Your task to perform on an android device: Empty the shopping cart on newegg.com. Search for macbook pro 15 inch on newegg.com, select the first entry, and add it to the cart. Image 0: 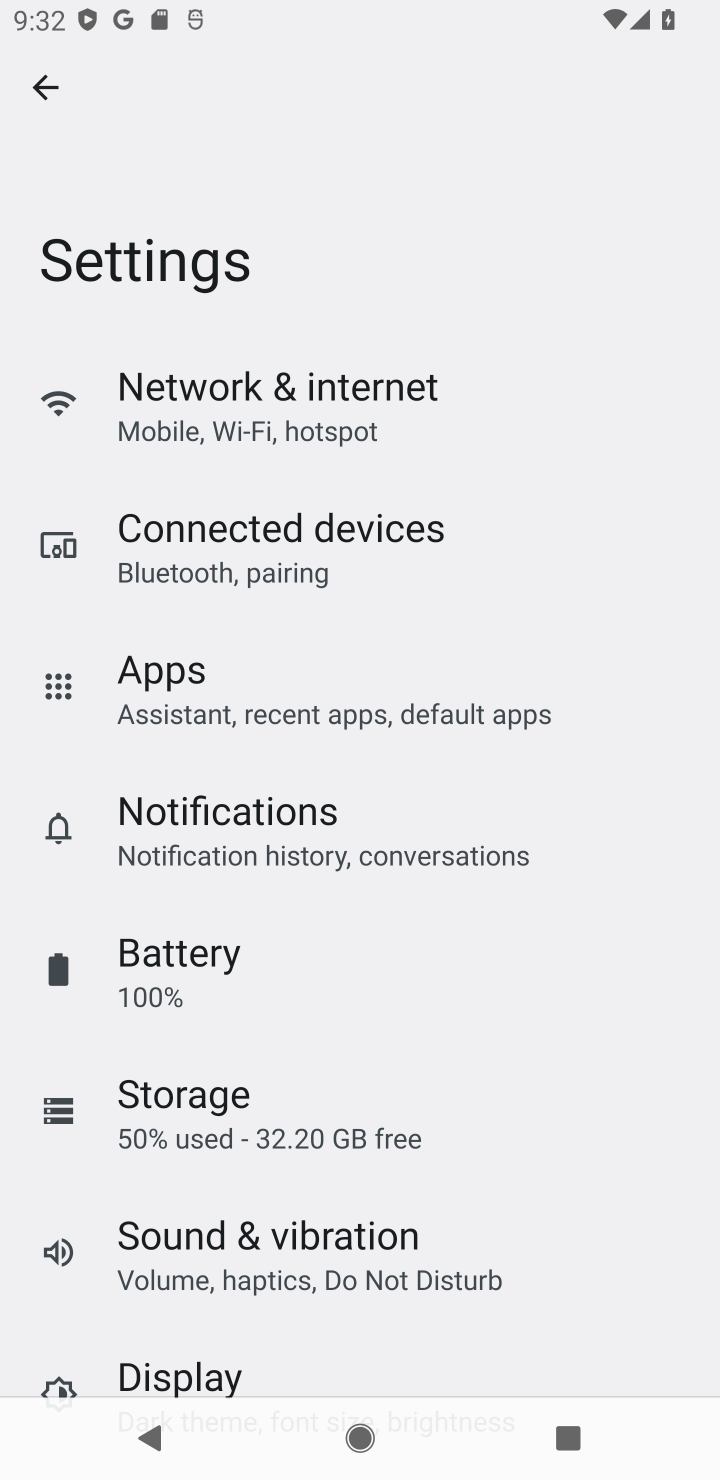
Step 0: press home button
Your task to perform on an android device: Empty the shopping cart on newegg.com. Search for macbook pro 15 inch on newegg.com, select the first entry, and add it to the cart. Image 1: 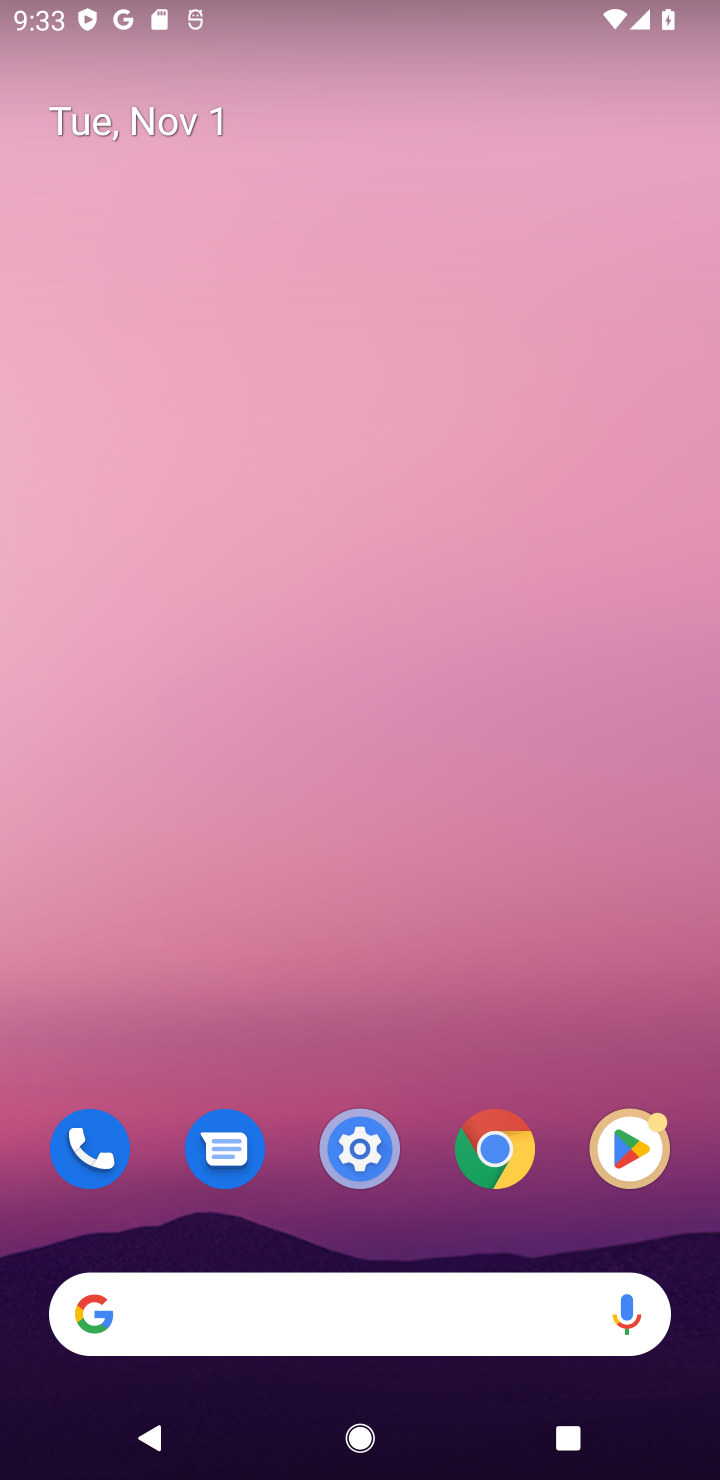
Step 1: click (152, 1308)
Your task to perform on an android device: Empty the shopping cart on newegg.com. Search for macbook pro 15 inch on newegg.com, select the first entry, and add it to the cart. Image 2: 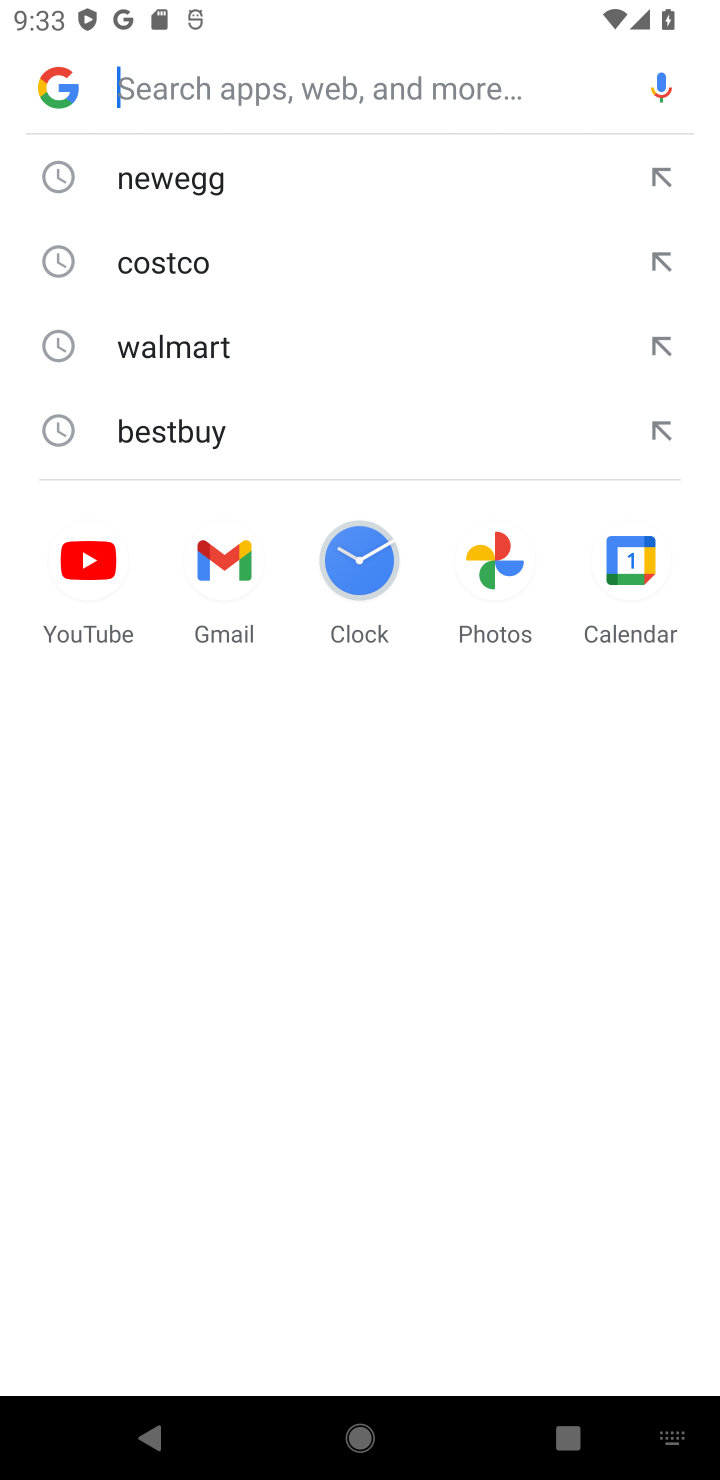
Step 2: type "newegg.com"
Your task to perform on an android device: Empty the shopping cart on newegg.com. Search for macbook pro 15 inch on newegg.com, select the first entry, and add it to the cart. Image 3: 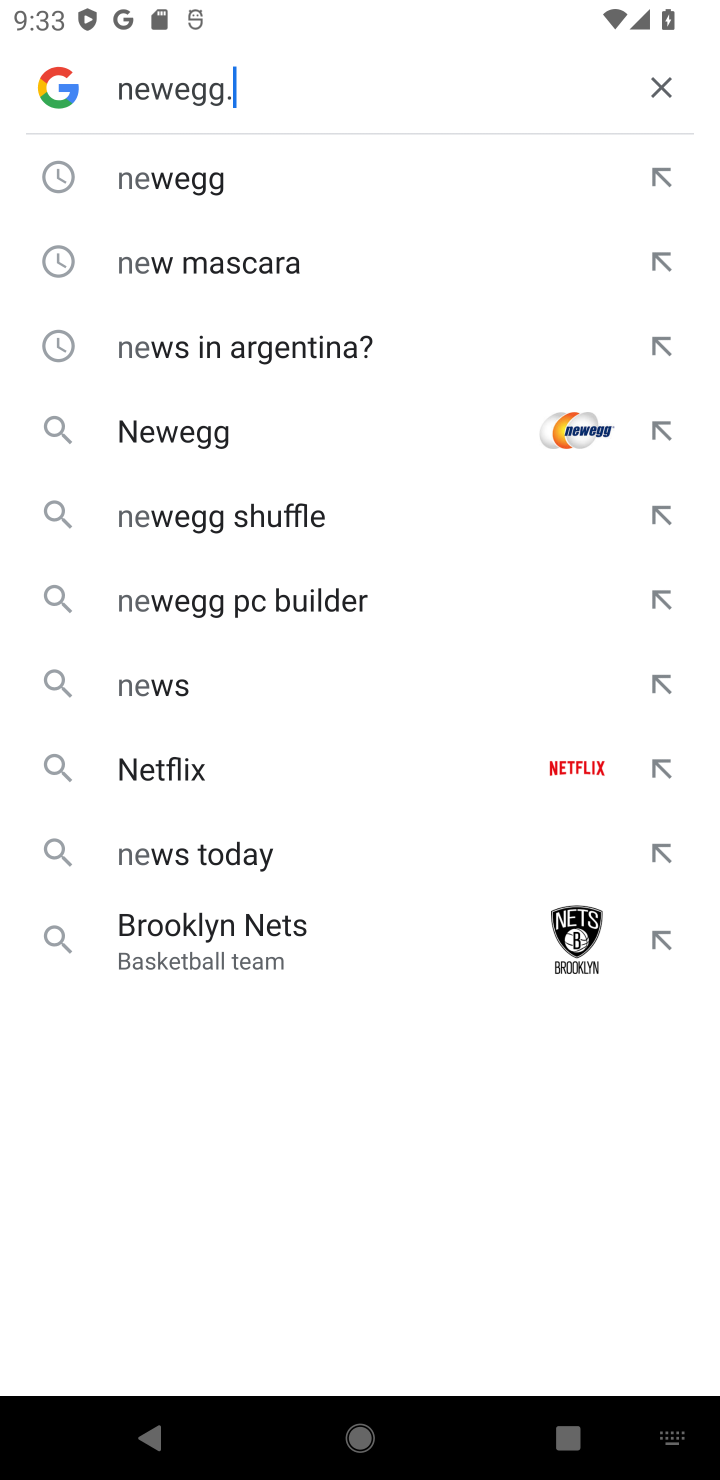
Step 3: press enter
Your task to perform on an android device: Empty the shopping cart on newegg.com. Search for macbook pro 15 inch on newegg.com, select the first entry, and add it to the cart. Image 4: 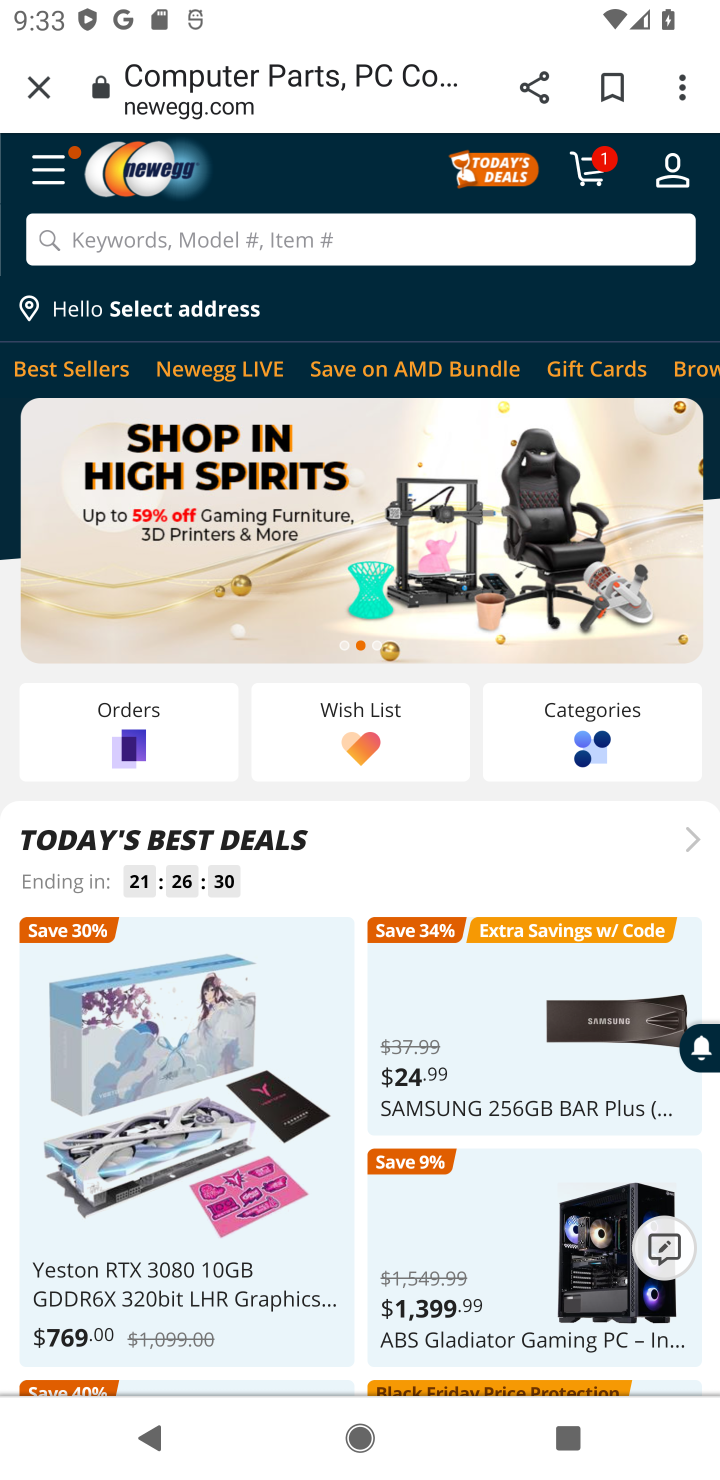
Step 4: click (596, 176)
Your task to perform on an android device: Empty the shopping cart on newegg.com. Search for macbook pro 15 inch on newegg.com, select the first entry, and add it to the cart. Image 5: 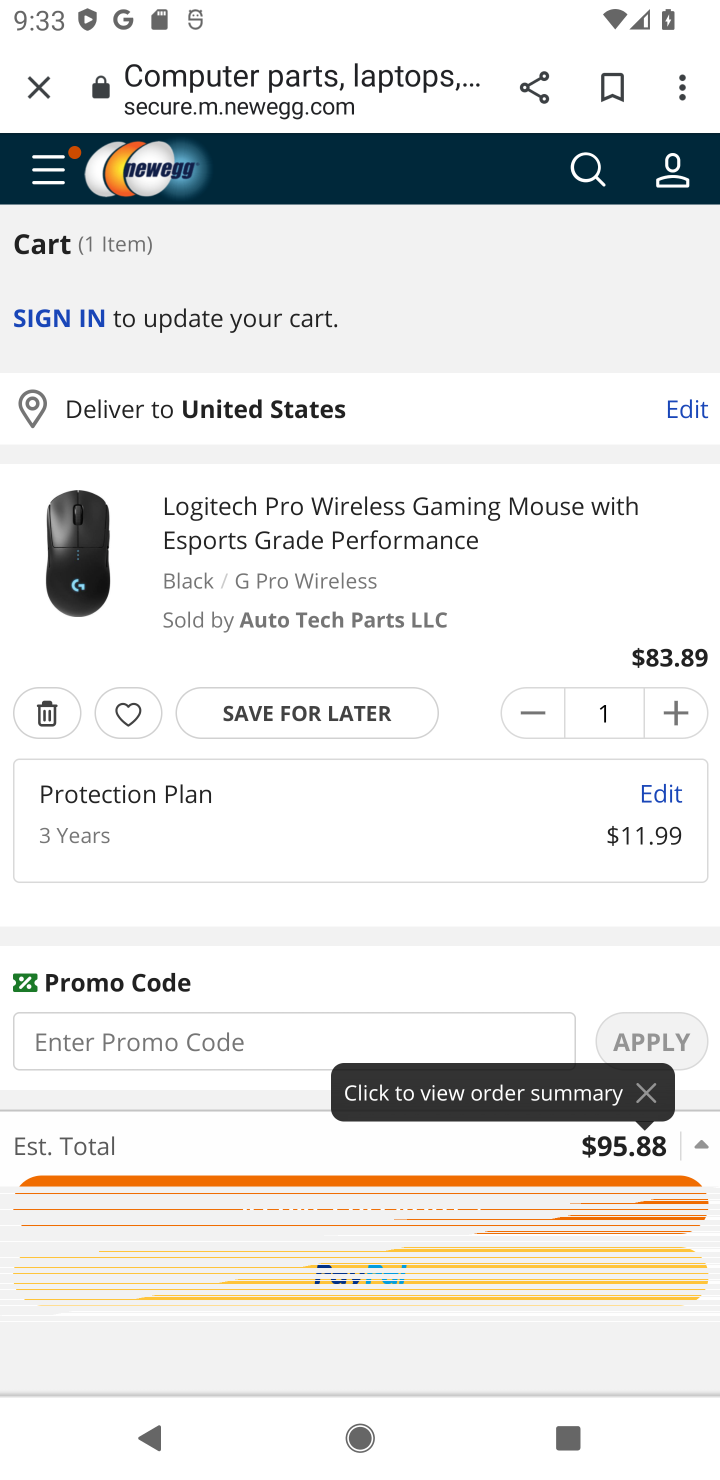
Step 5: click (39, 709)
Your task to perform on an android device: Empty the shopping cart on newegg.com. Search for macbook pro 15 inch on newegg.com, select the first entry, and add it to the cart. Image 6: 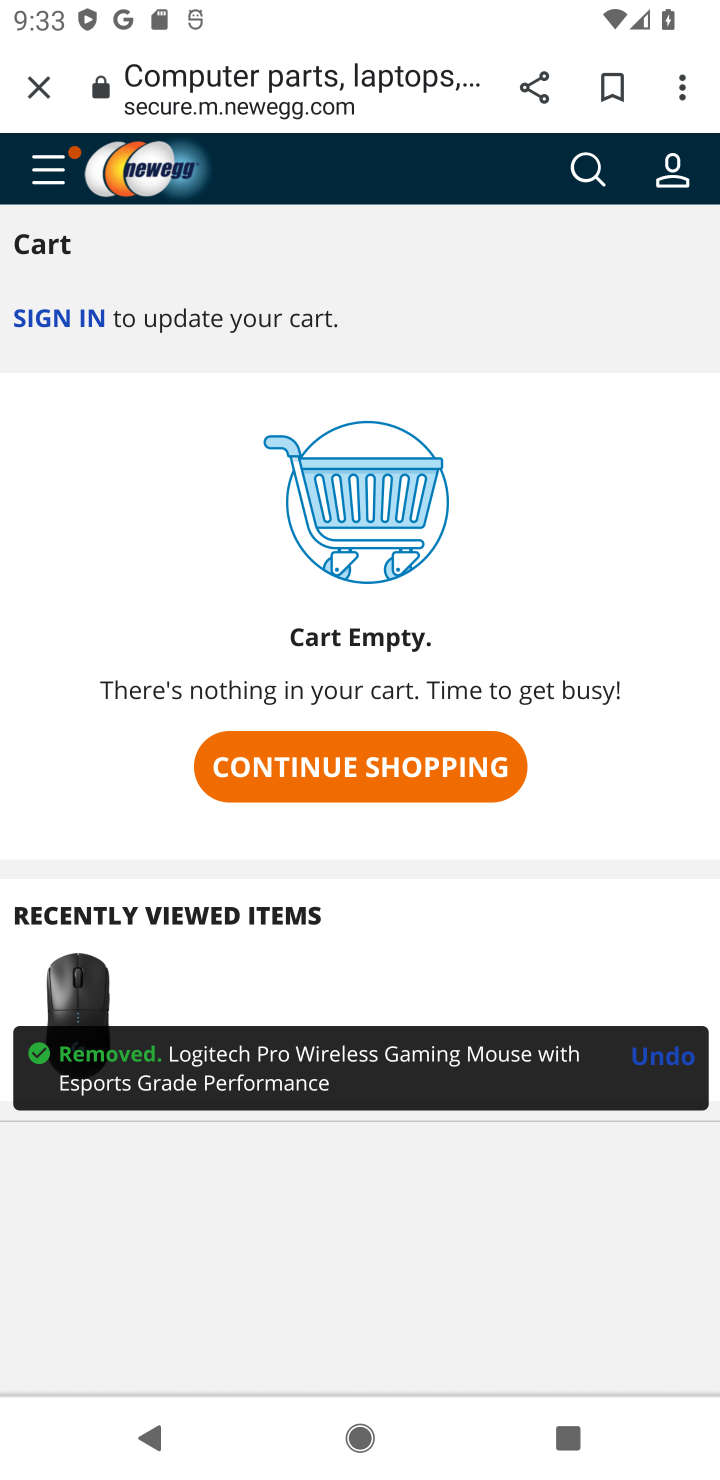
Step 6: click (588, 166)
Your task to perform on an android device: Empty the shopping cart on newegg.com. Search for macbook pro 15 inch on newegg.com, select the first entry, and add it to the cart. Image 7: 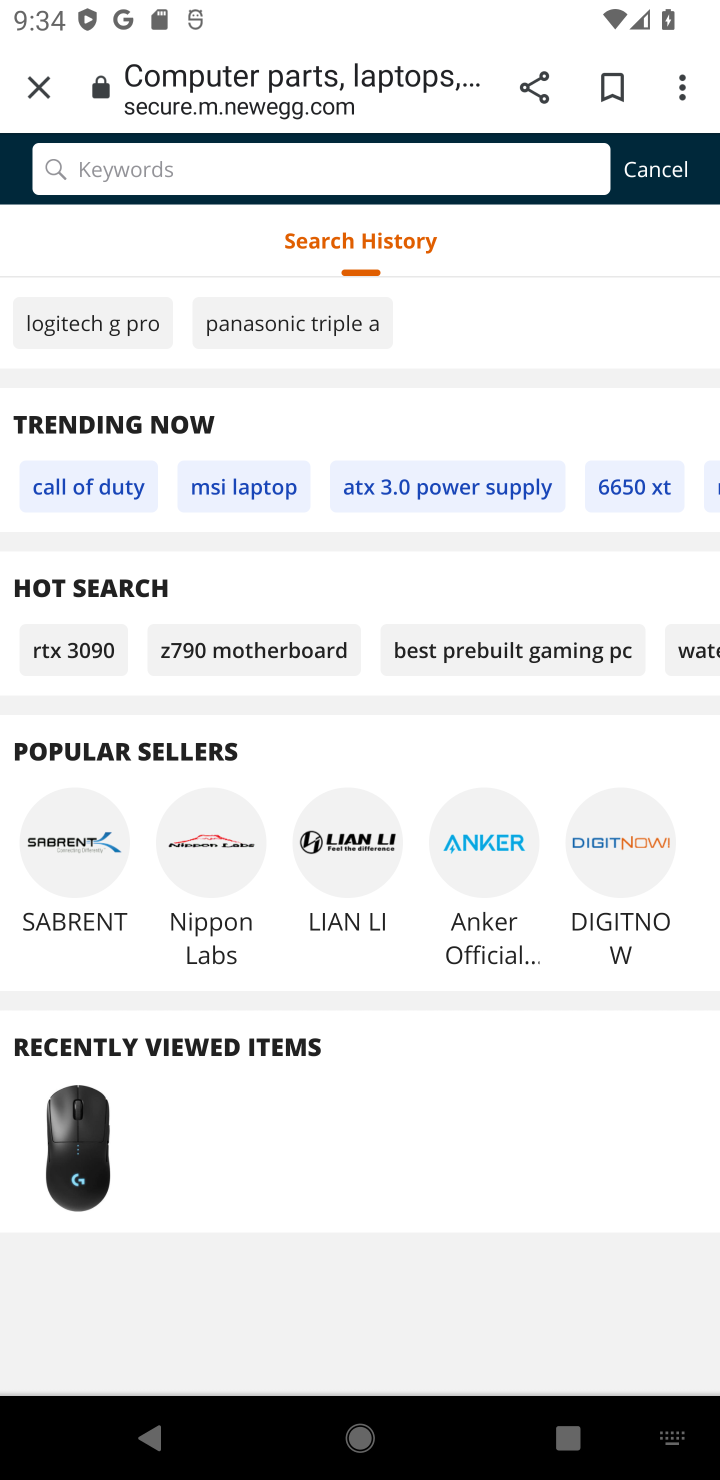
Step 7: type "macbook pro 15"
Your task to perform on an android device: Empty the shopping cart on newegg.com. Search for macbook pro 15 inch on newegg.com, select the first entry, and add it to the cart. Image 8: 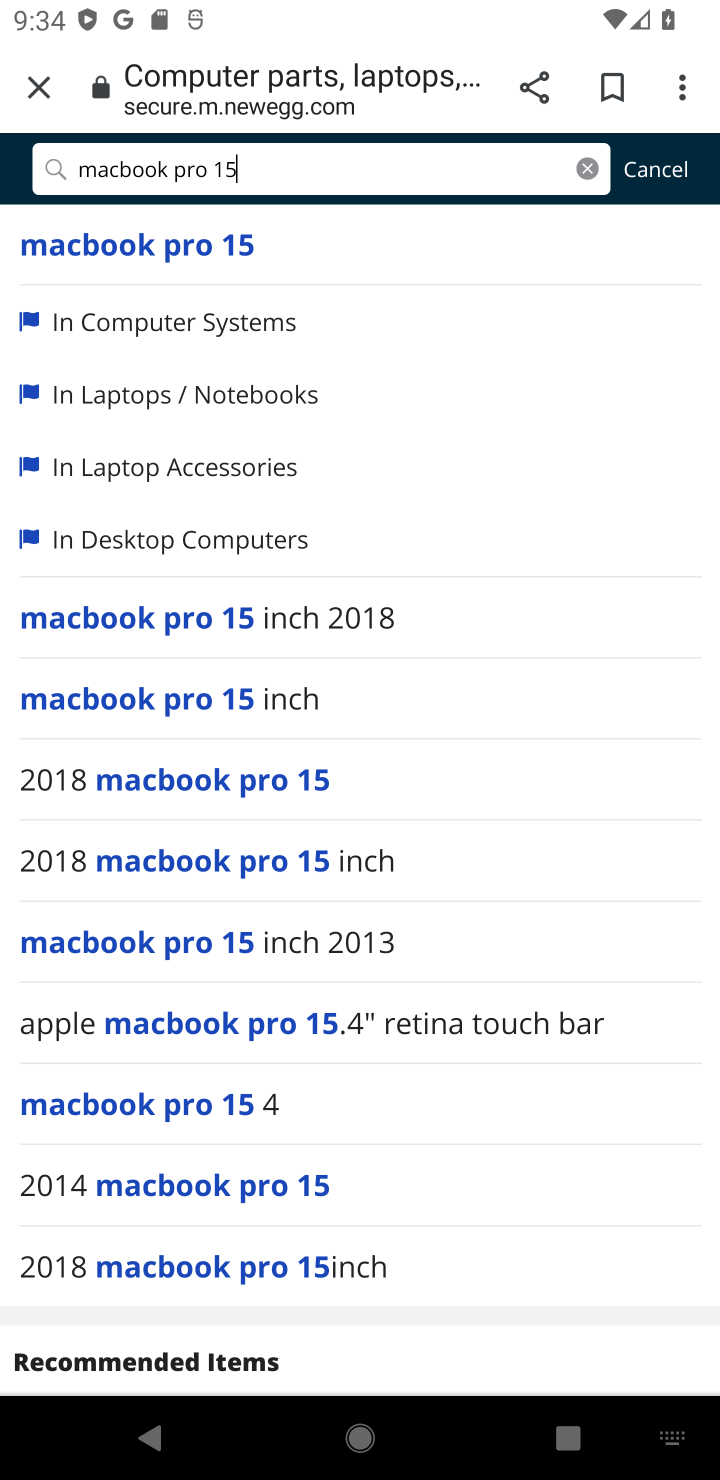
Step 8: click (214, 255)
Your task to perform on an android device: Empty the shopping cart on newegg.com. Search for macbook pro 15 inch on newegg.com, select the first entry, and add it to the cart. Image 9: 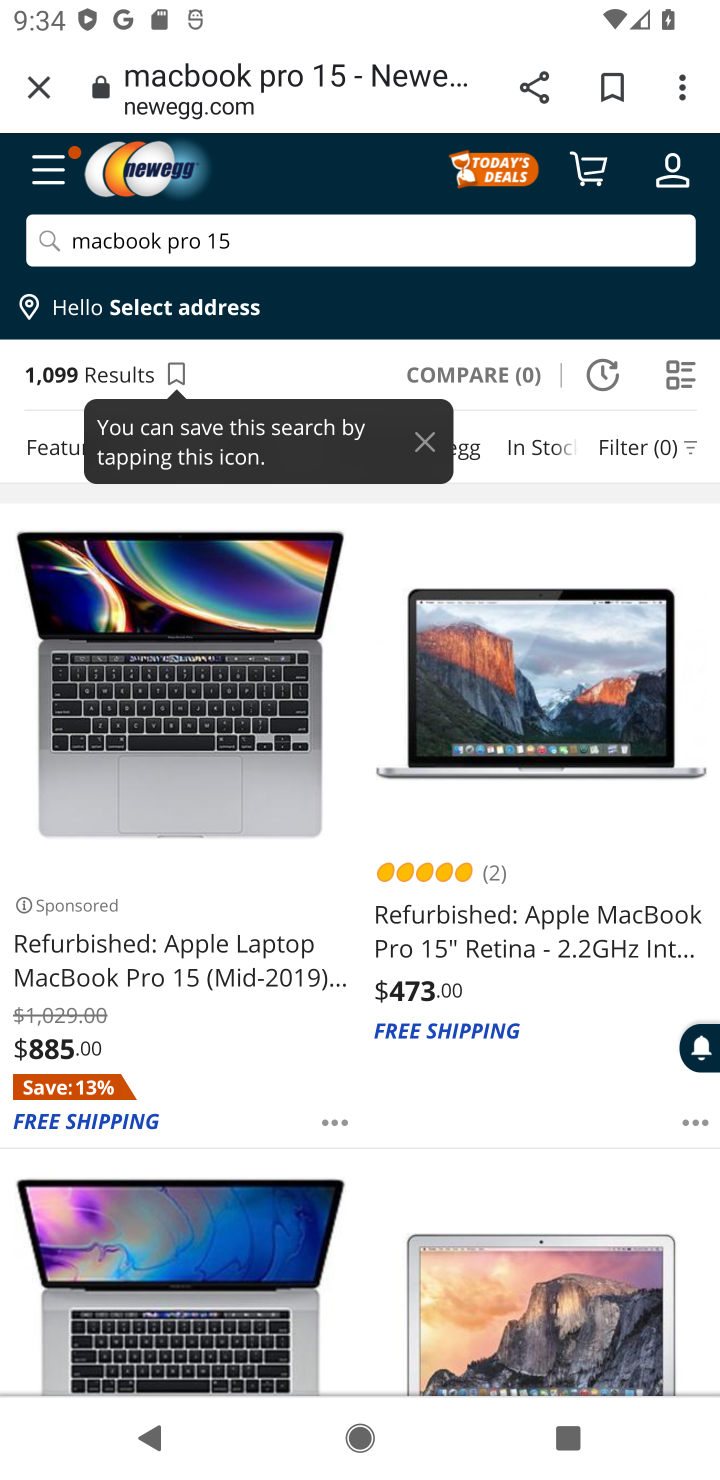
Step 9: drag from (398, 1065) to (473, 679)
Your task to perform on an android device: Empty the shopping cart on newegg.com. Search for macbook pro 15 inch on newegg.com, select the first entry, and add it to the cart. Image 10: 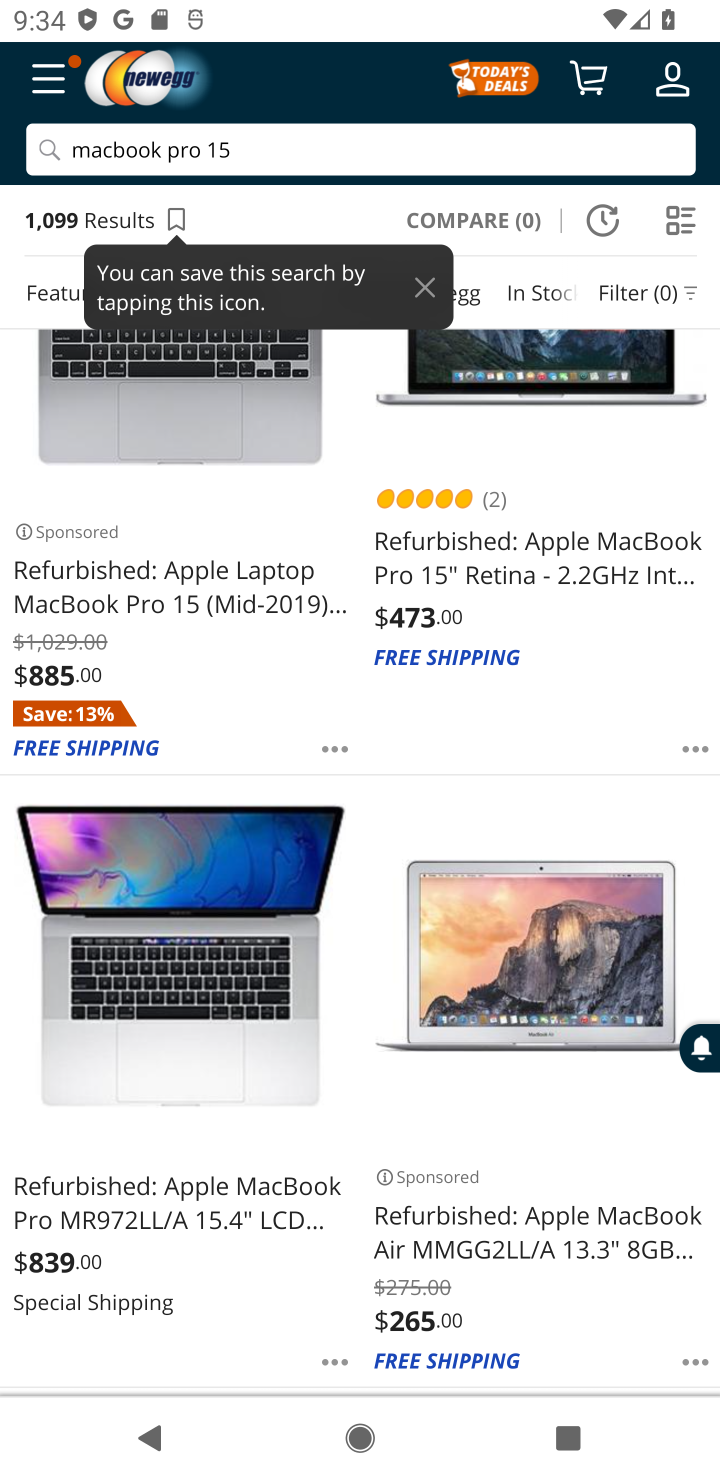
Step 10: click (506, 554)
Your task to perform on an android device: Empty the shopping cart on newegg.com. Search for macbook pro 15 inch on newegg.com, select the first entry, and add it to the cart. Image 11: 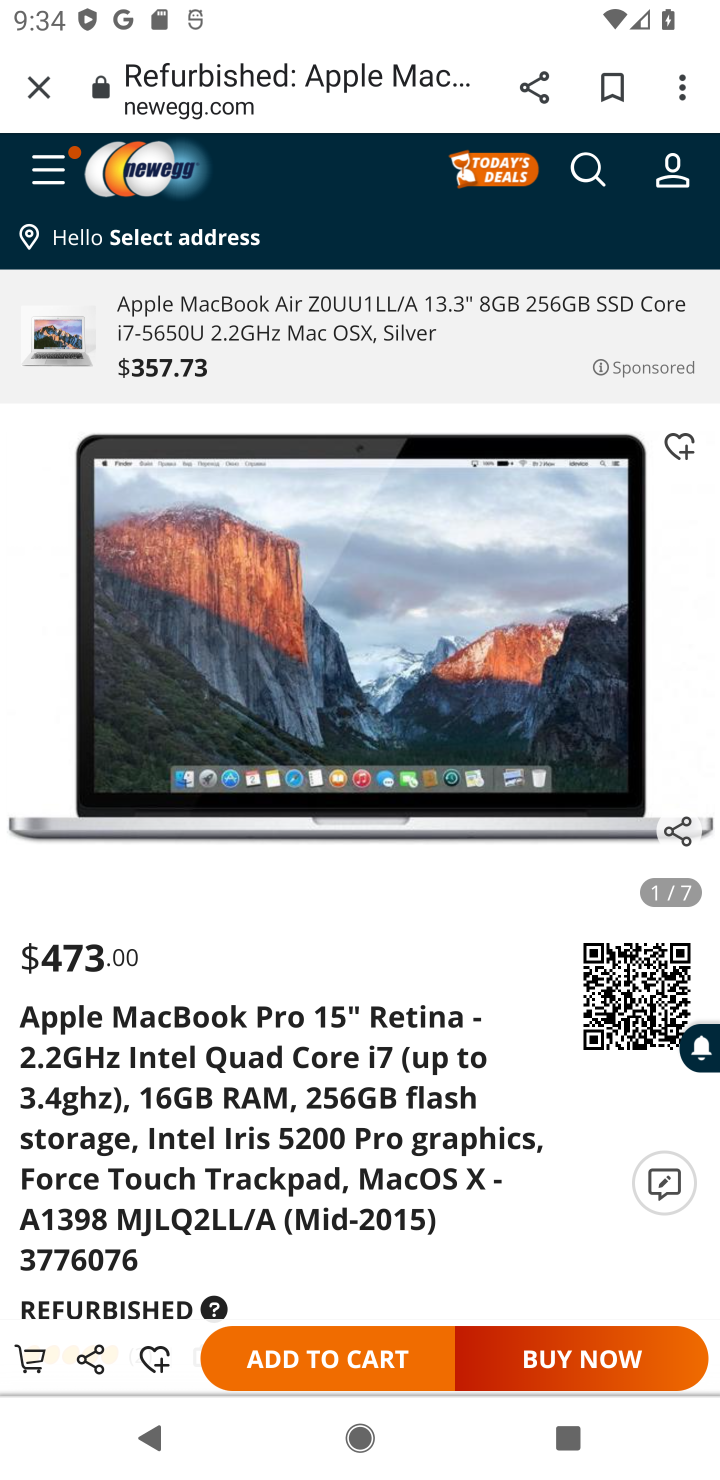
Step 11: click (559, 561)
Your task to perform on an android device: Empty the shopping cart on newegg.com. Search for macbook pro 15 inch on newegg.com, select the first entry, and add it to the cart. Image 12: 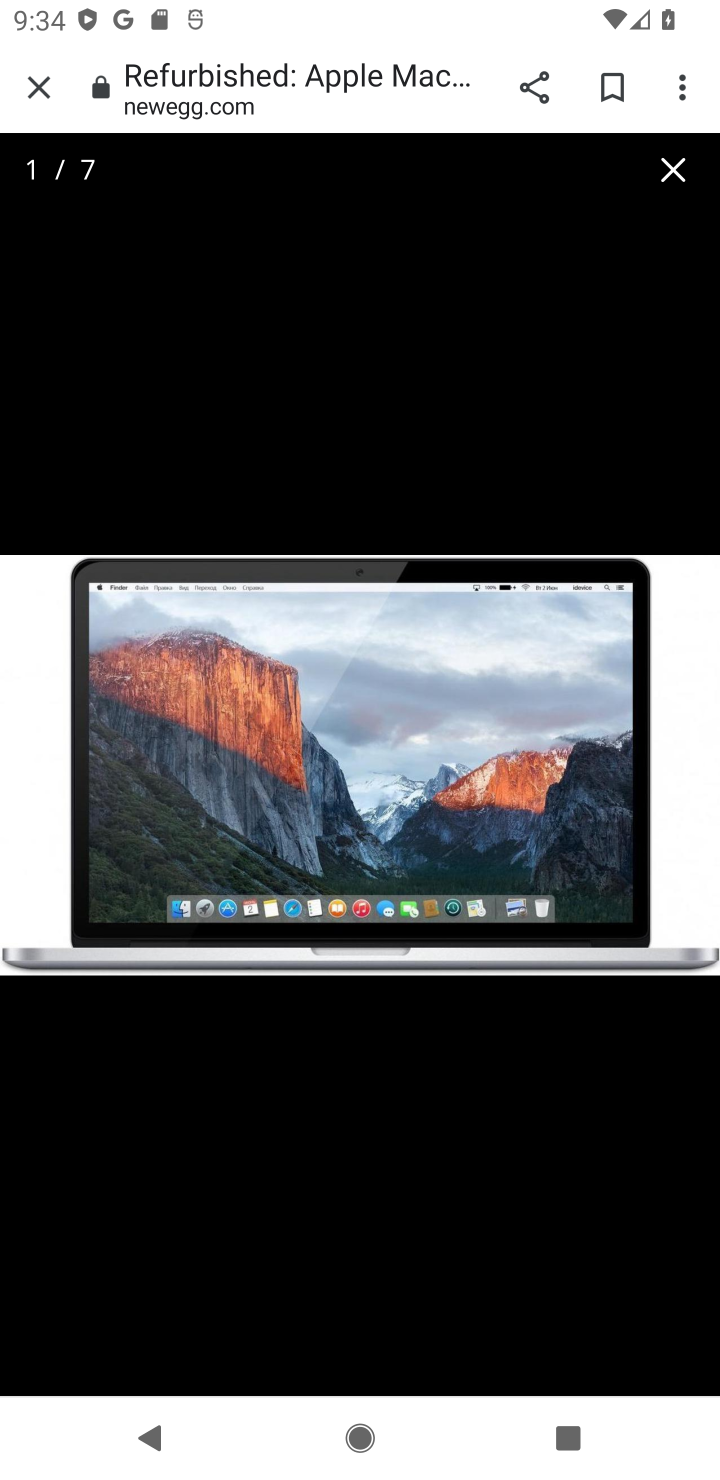
Step 12: click (672, 170)
Your task to perform on an android device: Empty the shopping cart on newegg.com. Search for macbook pro 15 inch on newegg.com, select the first entry, and add it to the cart. Image 13: 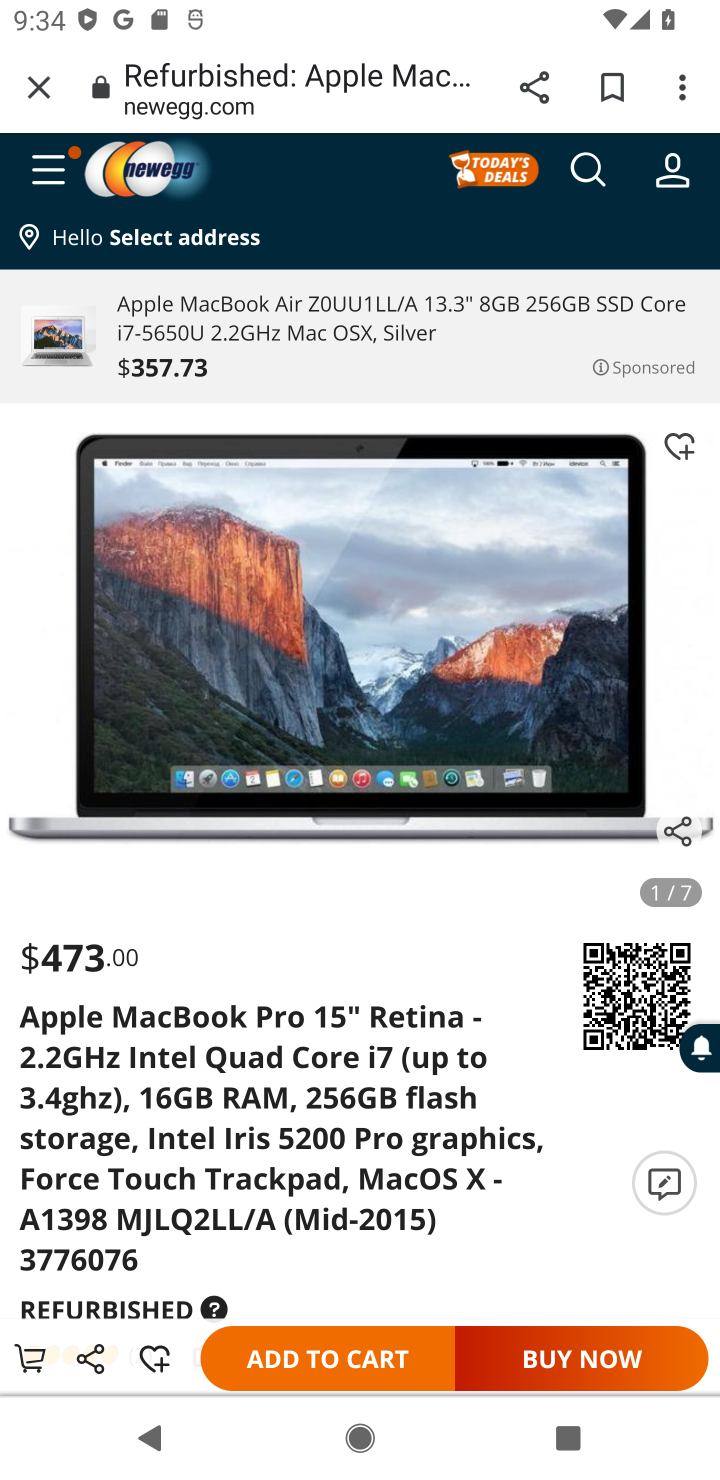
Step 13: click (282, 1363)
Your task to perform on an android device: Empty the shopping cart on newegg.com. Search for macbook pro 15 inch on newegg.com, select the first entry, and add it to the cart. Image 14: 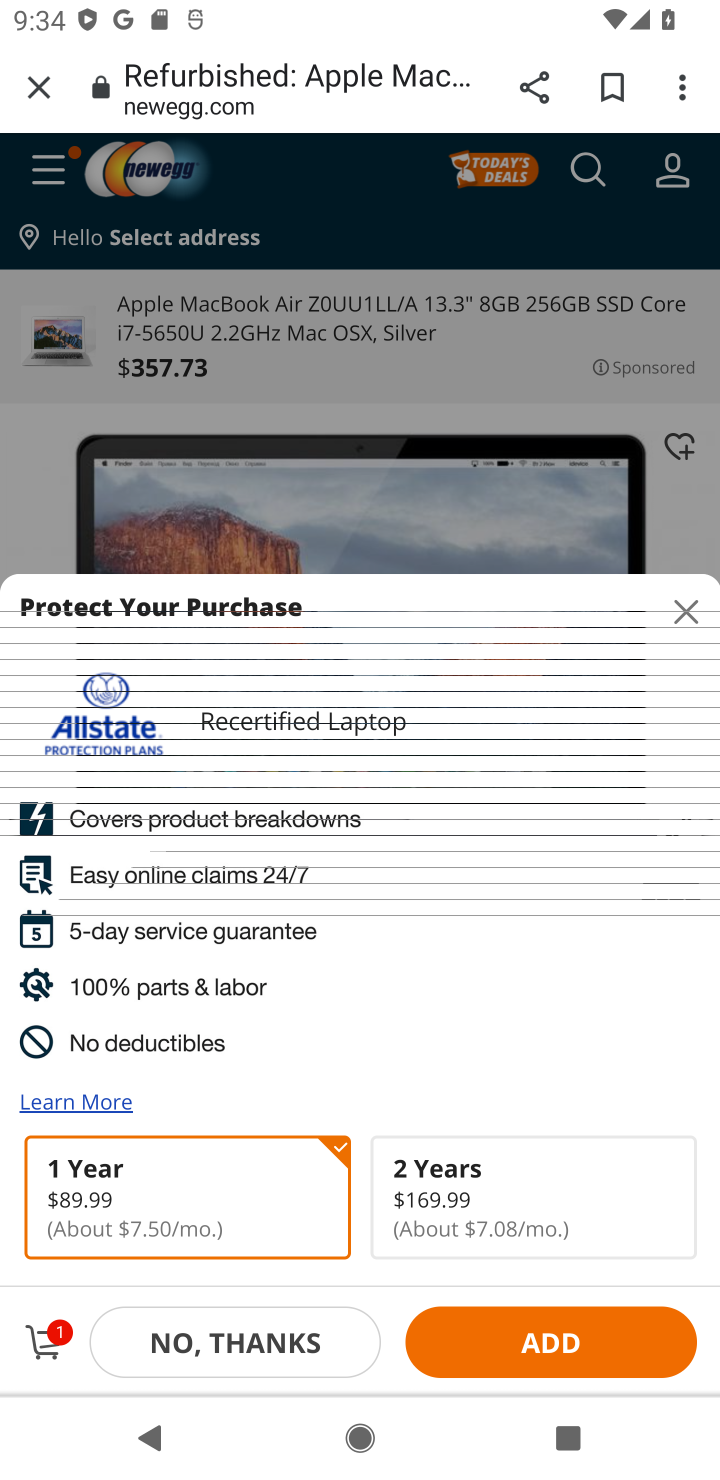
Step 14: click (570, 1332)
Your task to perform on an android device: Empty the shopping cart on newegg.com. Search for macbook pro 15 inch on newegg.com, select the first entry, and add it to the cart. Image 15: 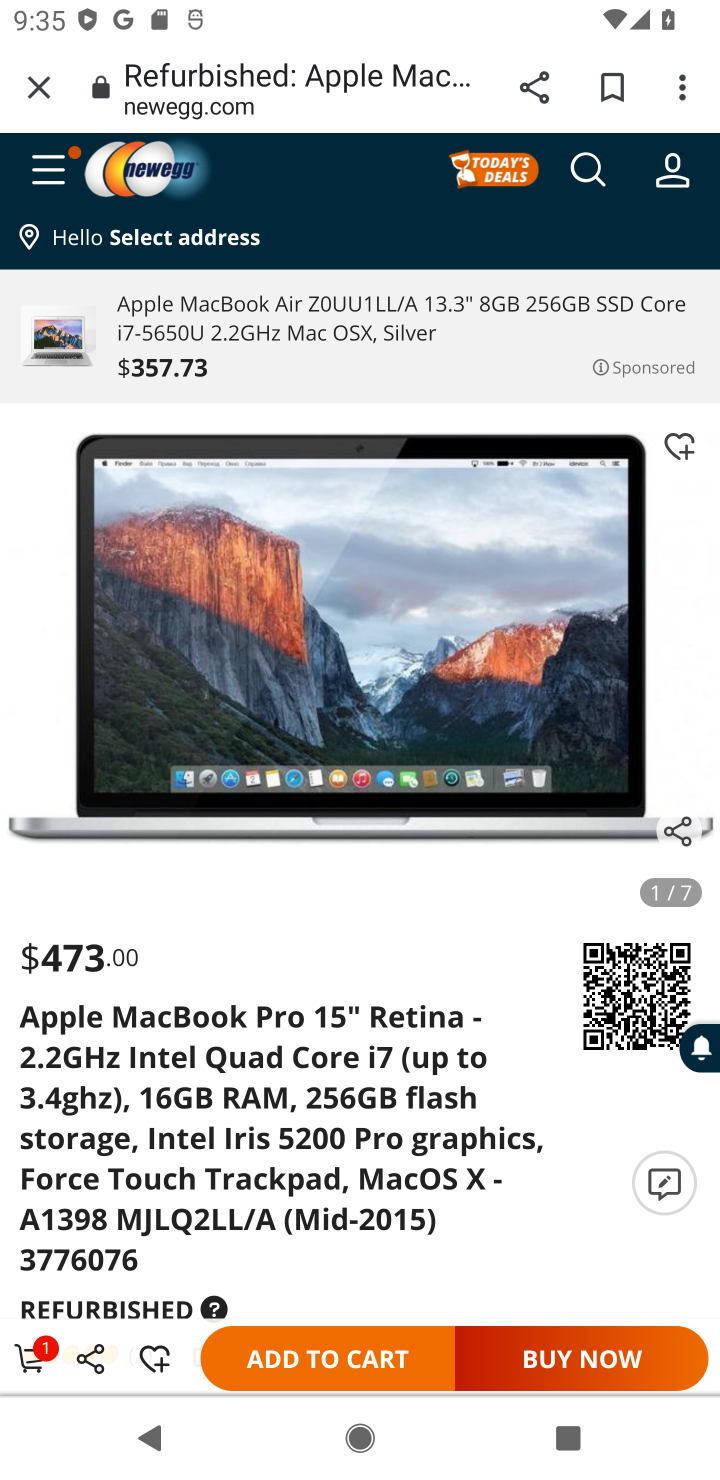
Step 15: task complete